Your task to perform on an android device: Open a new Chrome window Image 0: 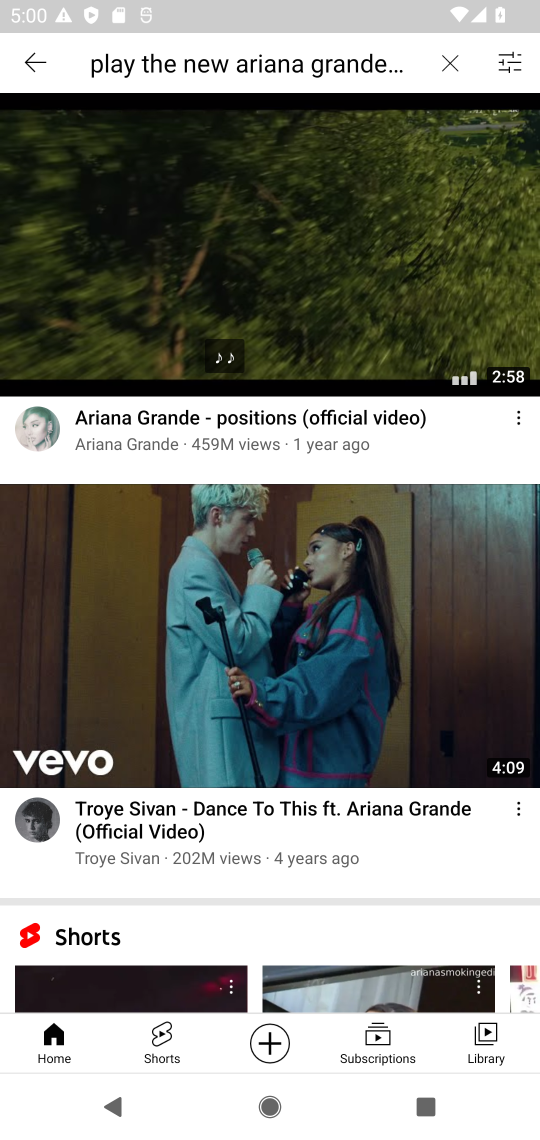
Step 0: press home button
Your task to perform on an android device: Open a new Chrome window Image 1: 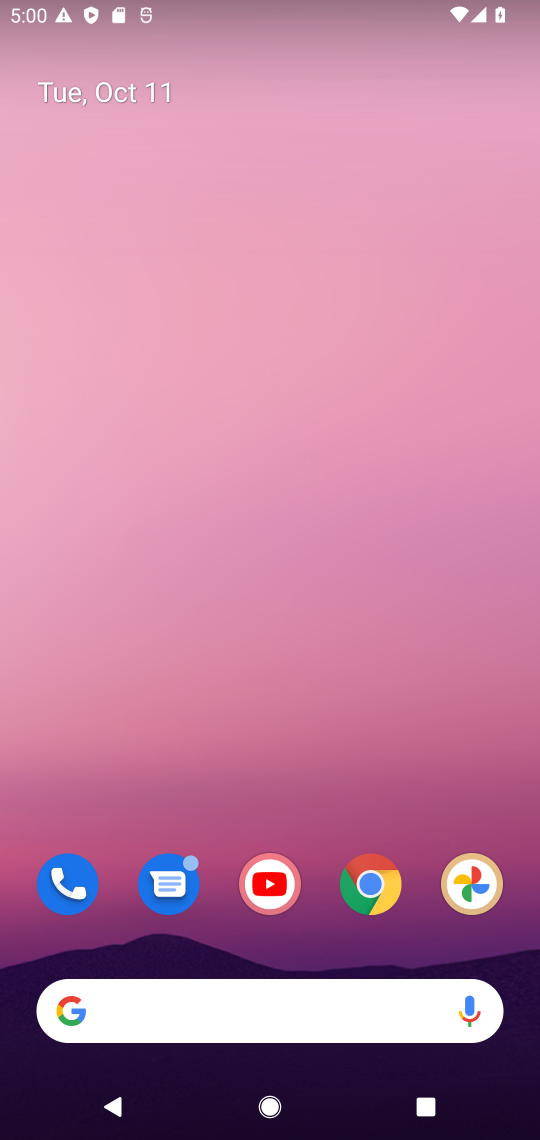
Step 1: drag from (331, 976) to (325, 219)
Your task to perform on an android device: Open a new Chrome window Image 2: 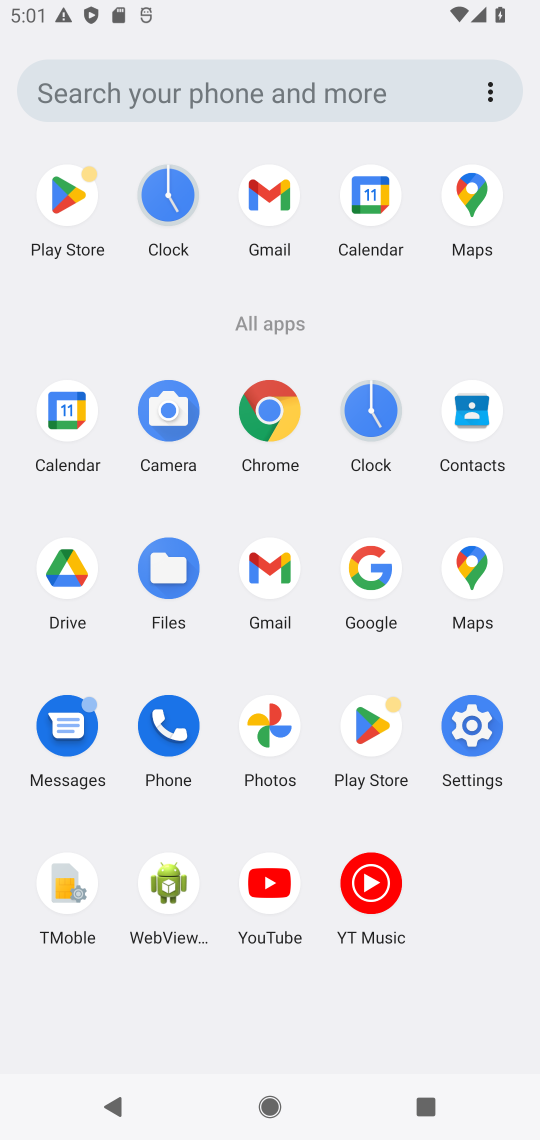
Step 2: click (262, 412)
Your task to perform on an android device: Open a new Chrome window Image 3: 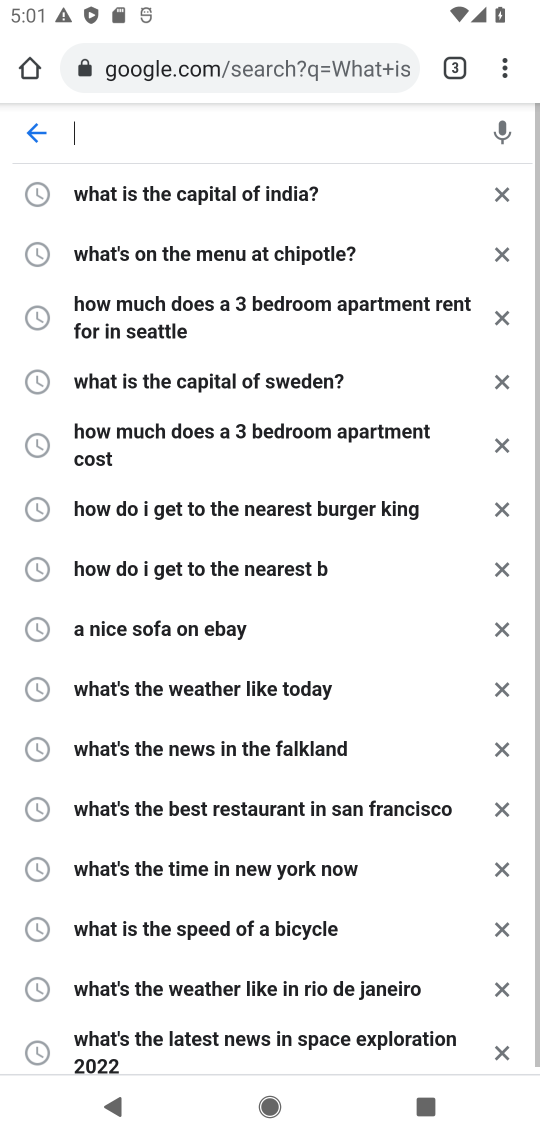
Step 3: click (505, 69)
Your task to perform on an android device: Open a new Chrome window Image 4: 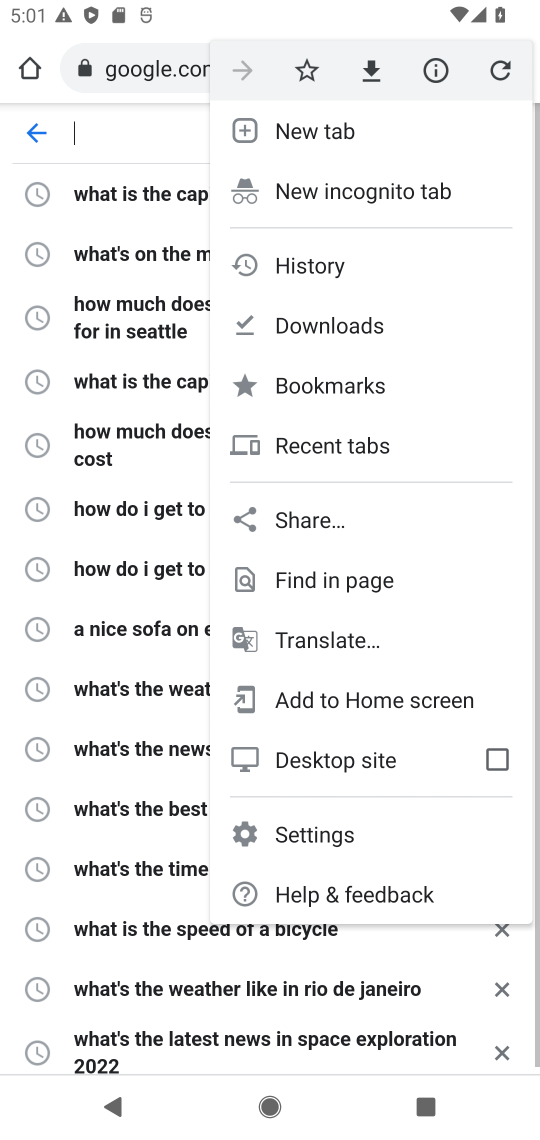
Step 4: click (332, 129)
Your task to perform on an android device: Open a new Chrome window Image 5: 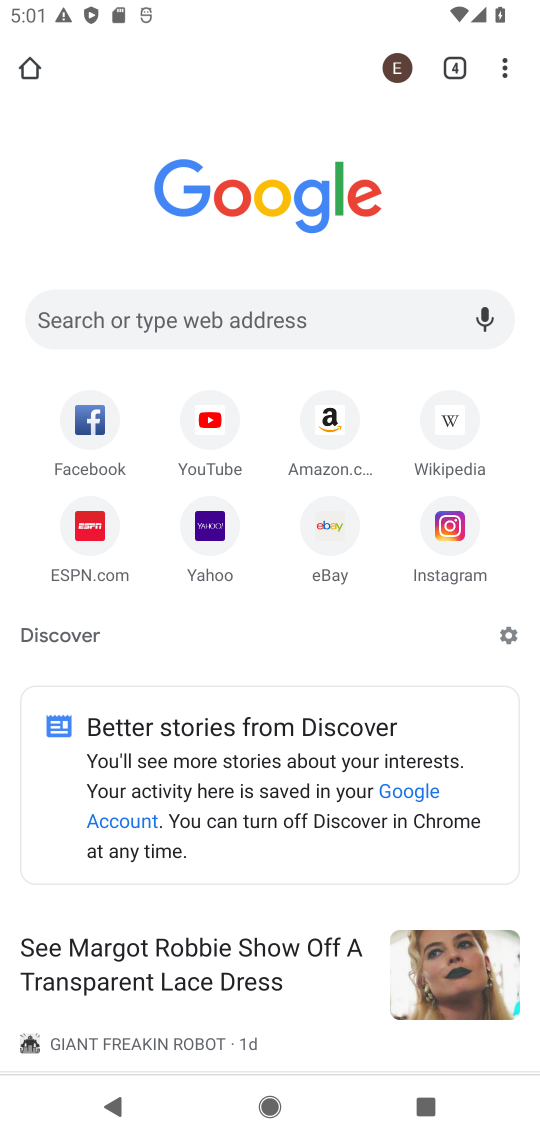
Step 5: task complete